Your task to perform on an android device: Add "amazon basics triple a" to the cart on costco.com Image 0: 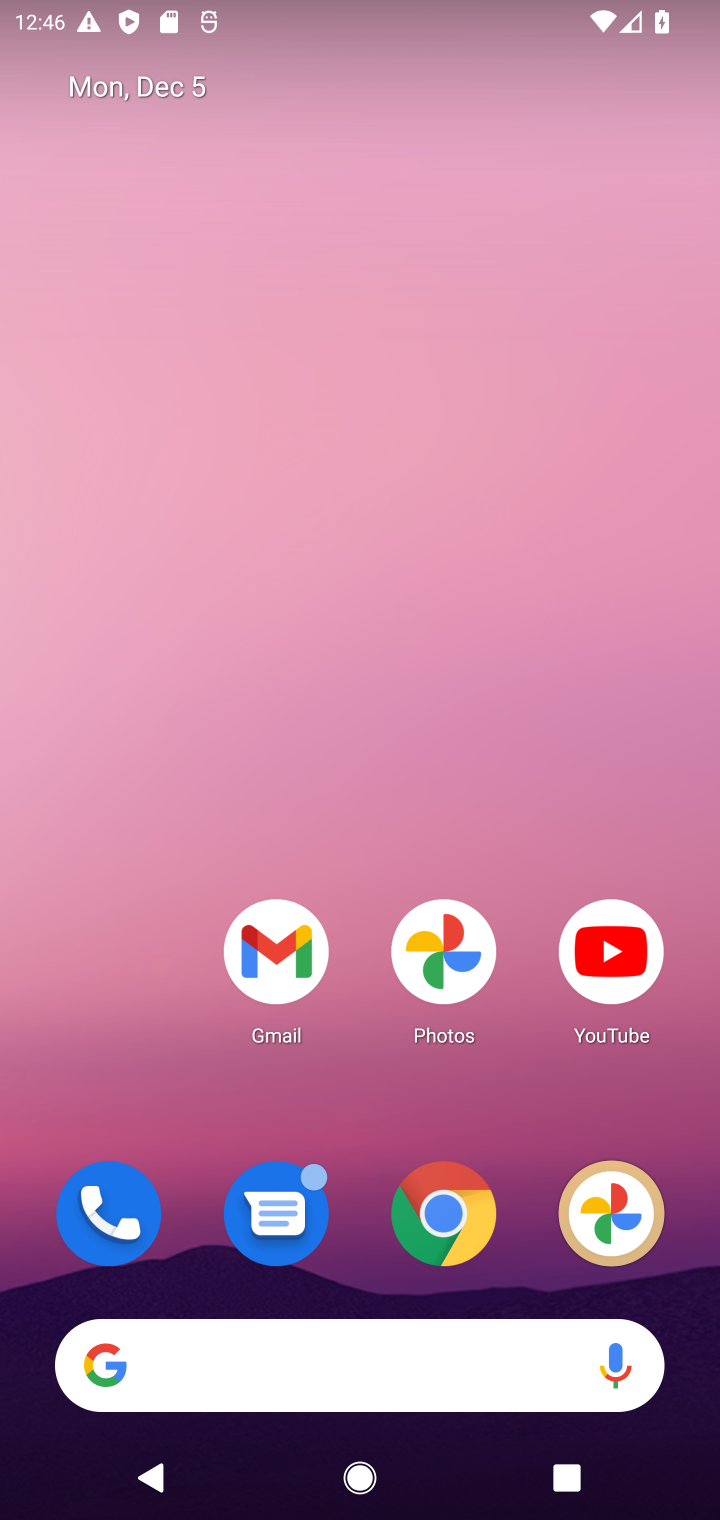
Step 0: click (438, 1234)
Your task to perform on an android device: Add "amazon basics triple a" to the cart on costco.com Image 1: 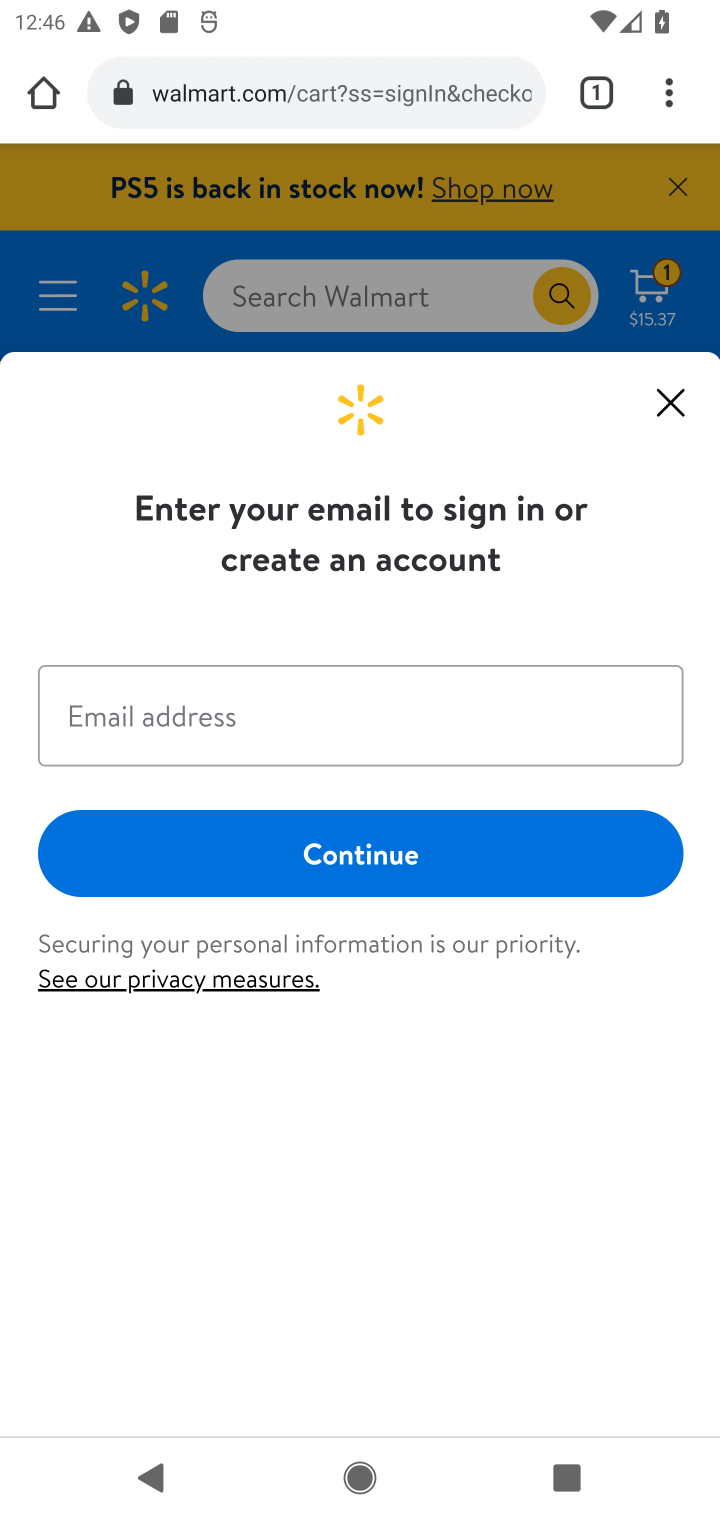
Step 1: click (319, 89)
Your task to perform on an android device: Add "amazon basics triple a" to the cart on costco.com Image 2: 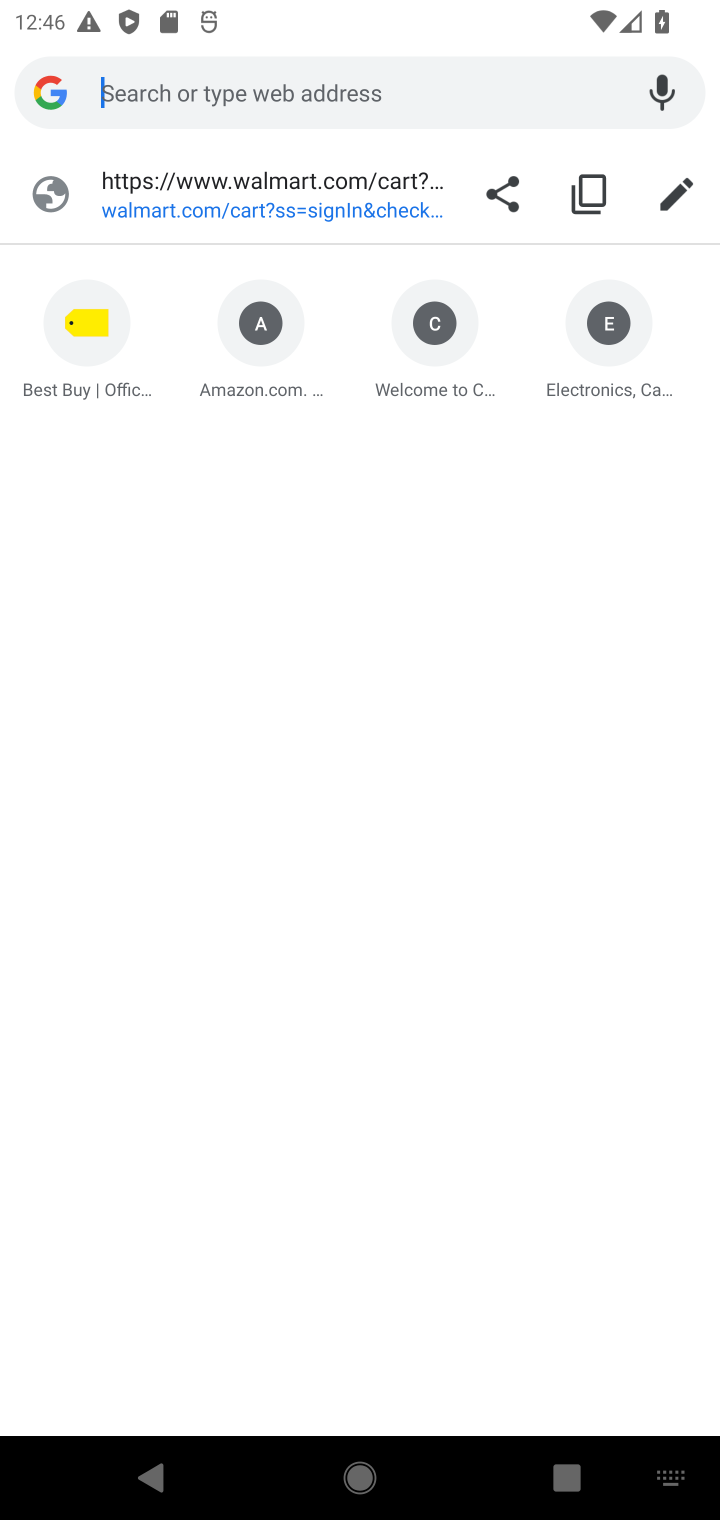
Step 2: type "costco.com"
Your task to perform on an android device: Add "amazon basics triple a" to the cart on costco.com Image 3: 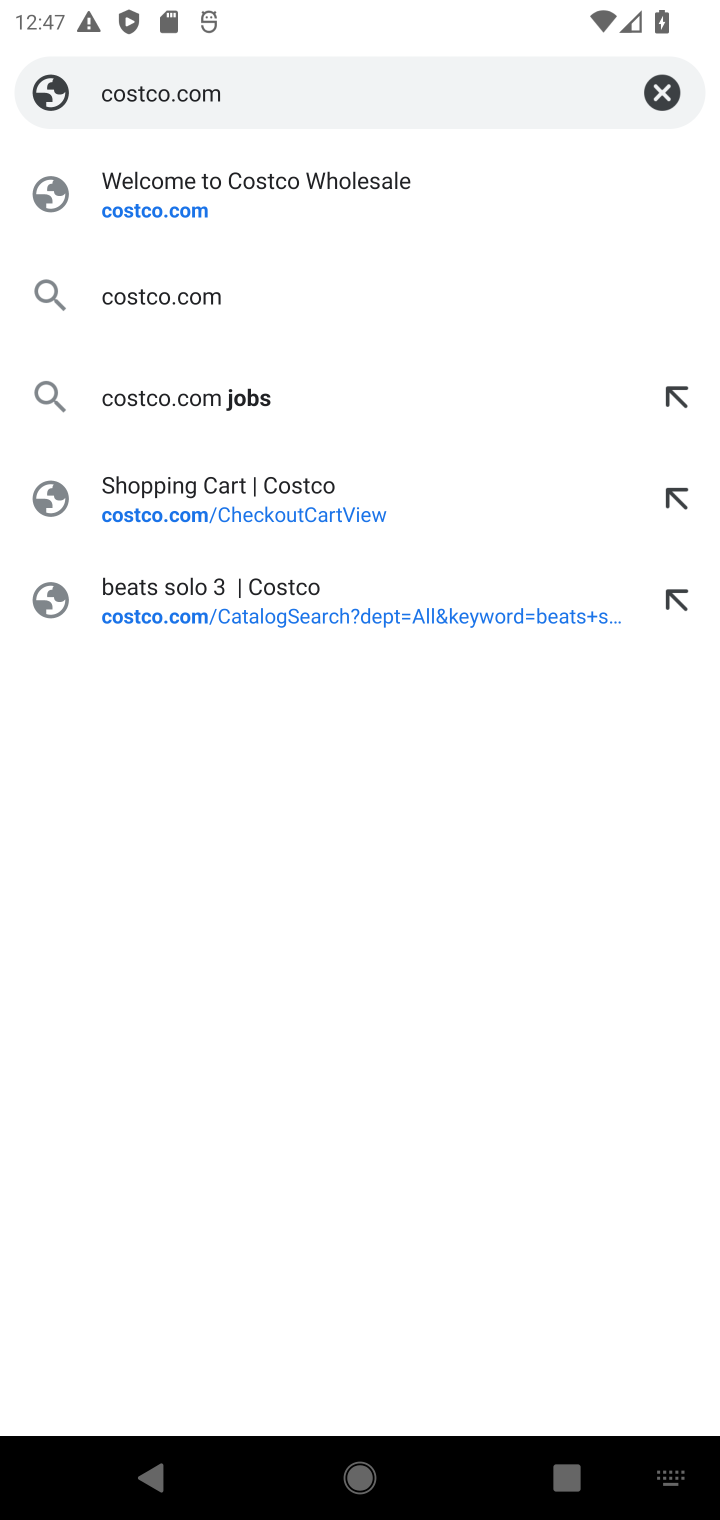
Step 3: click (154, 226)
Your task to perform on an android device: Add "amazon basics triple a" to the cart on costco.com Image 4: 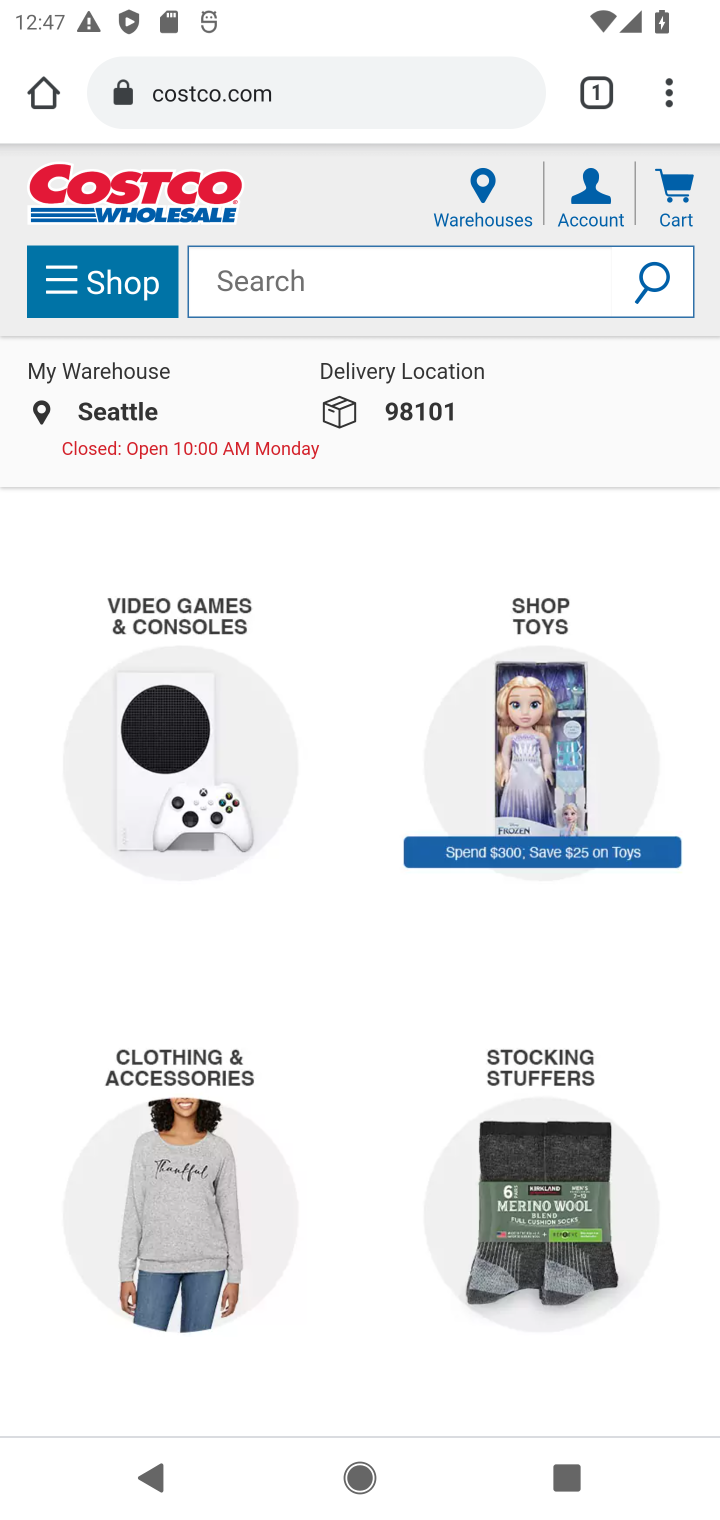
Step 4: click (333, 279)
Your task to perform on an android device: Add "amazon basics triple a" to the cart on costco.com Image 5: 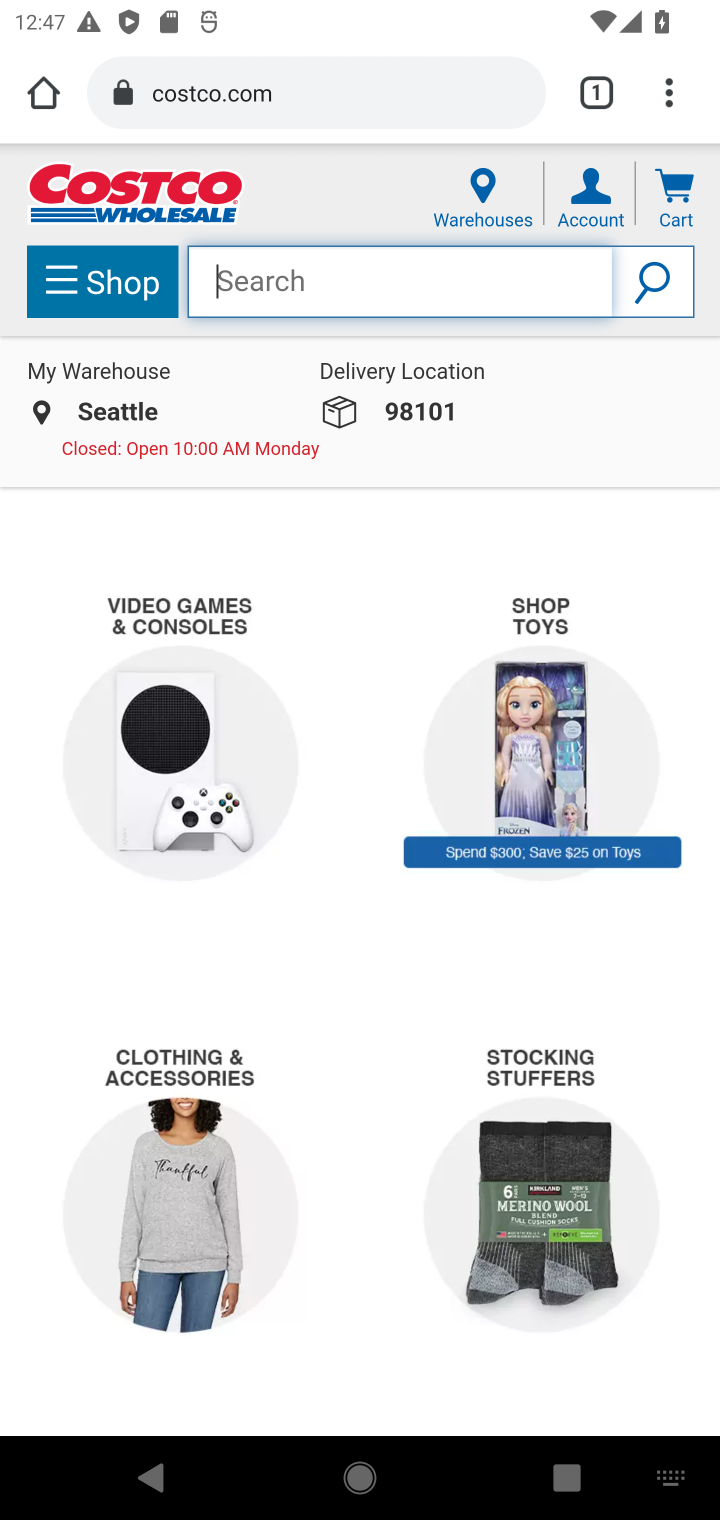
Step 5: type "amazon basics triple a"
Your task to perform on an android device: Add "amazon basics triple a" to the cart on costco.com Image 6: 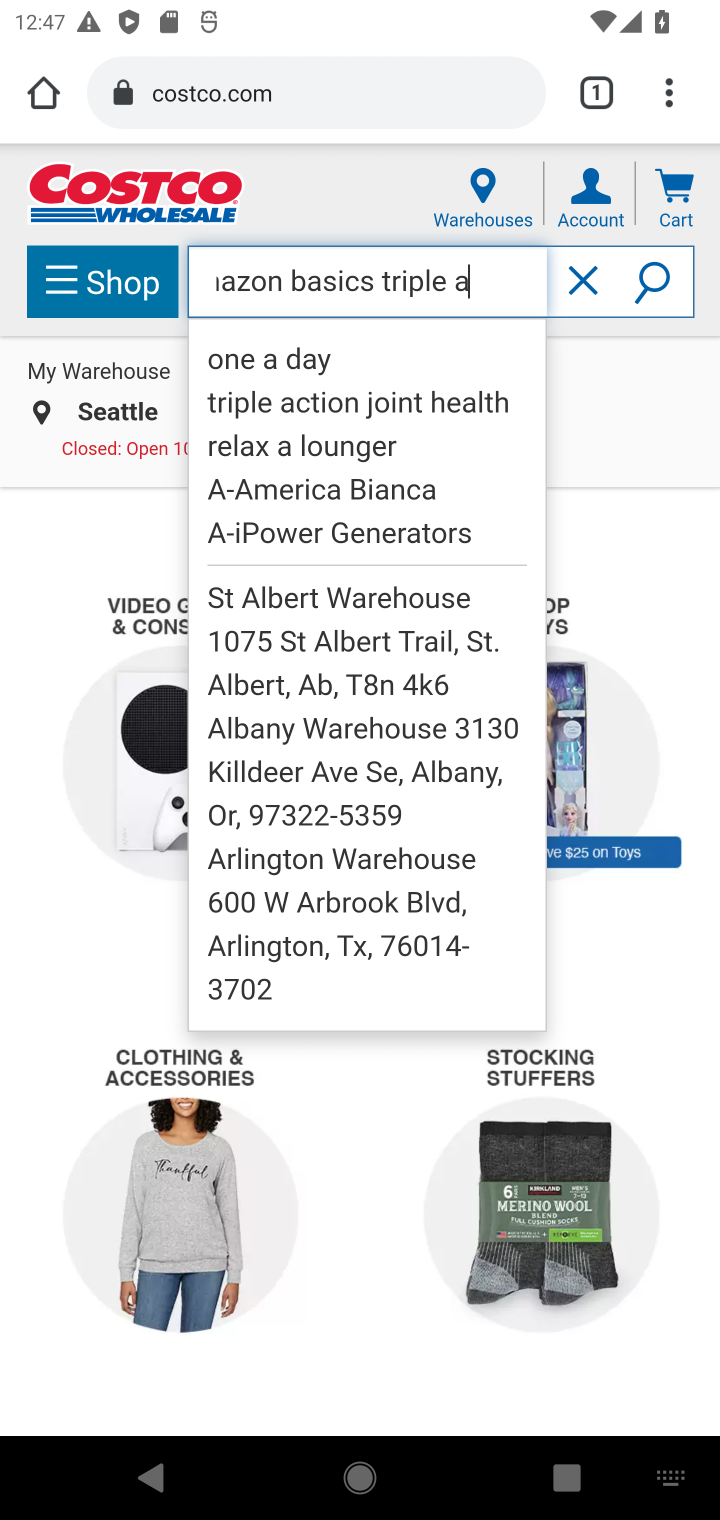
Step 6: click (660, 277)
Your task to perform on an android device: Add "amazon basics triple a" to the cart on costco.com Image 7: 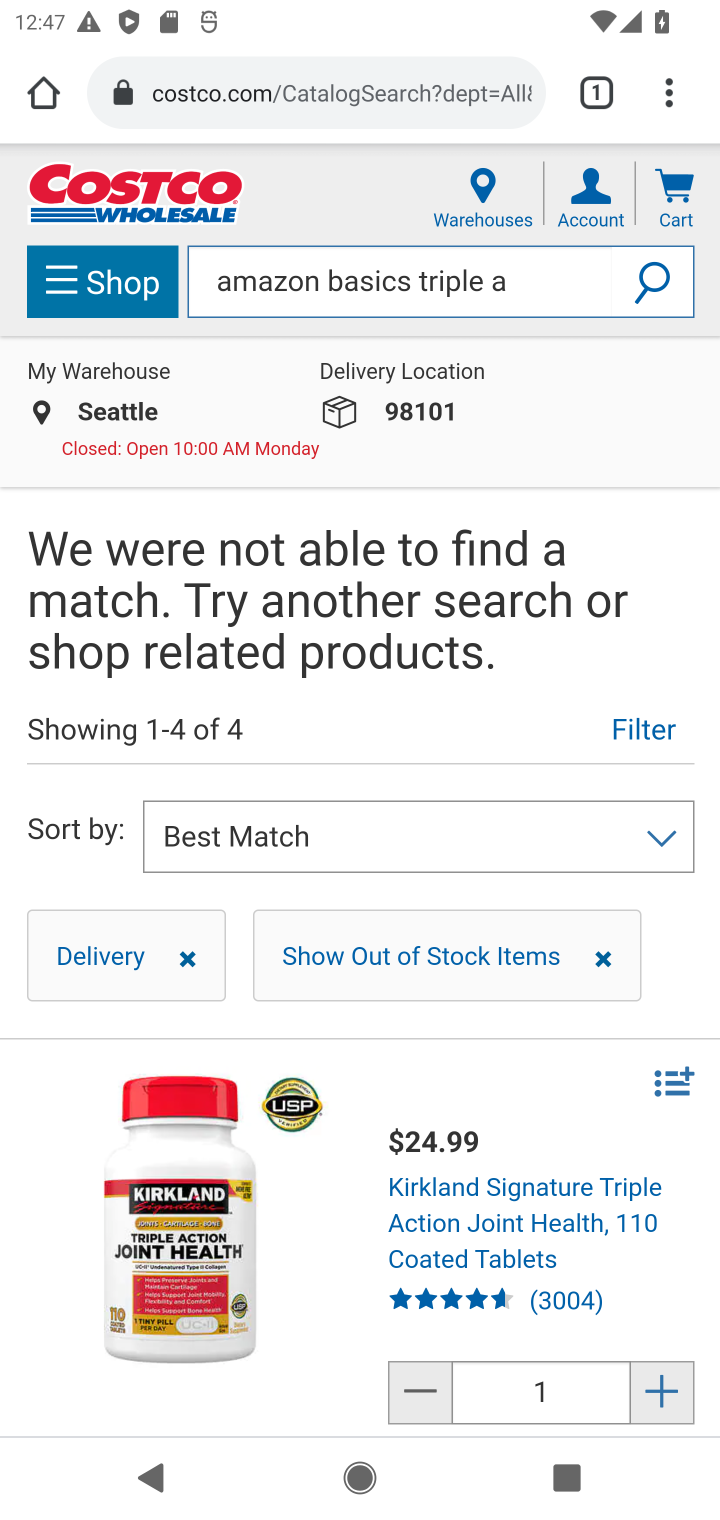
Step 7: task complete